Your task to perform on an android device: toggle data saver in the chrome app Image 0: 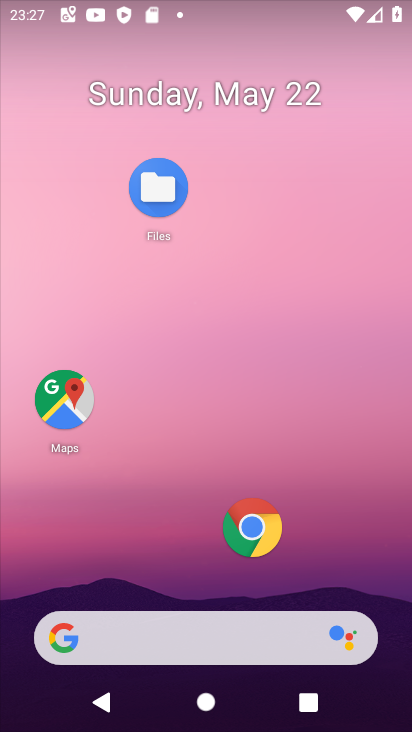
Step 0: click (254, 530)
Your task to perform on an android device: toggle data saver in the chrome app Image 1: 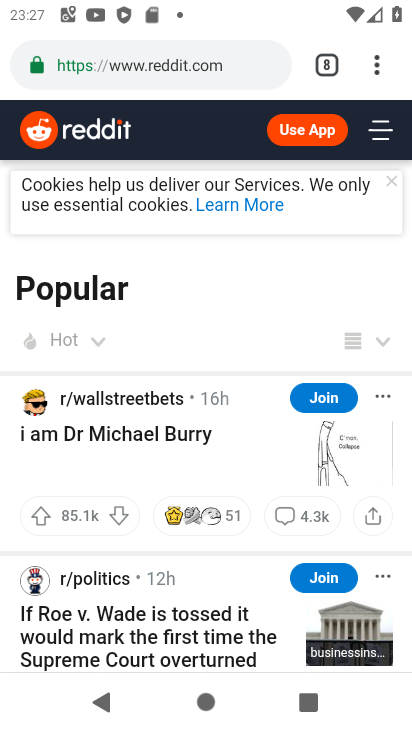
Step 1: click (378, 64)
Your task to perform on an android device: toggle data saver in the chrome app Image 2: 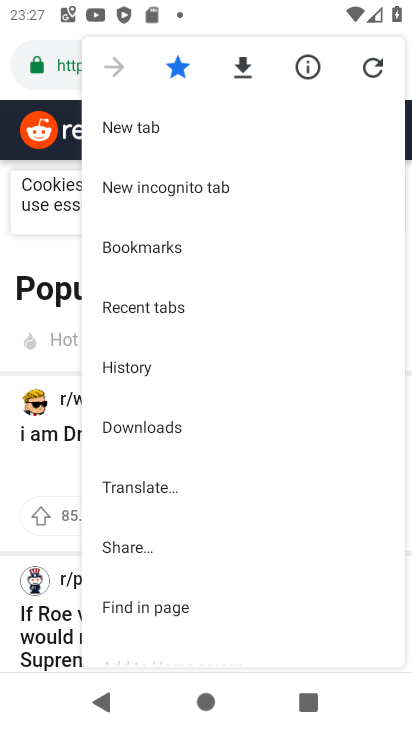
Step 2: drag from (213, 514) to (206, 116)
Your task to perform on an android device: toggle data saver in the chrome app Image 3: 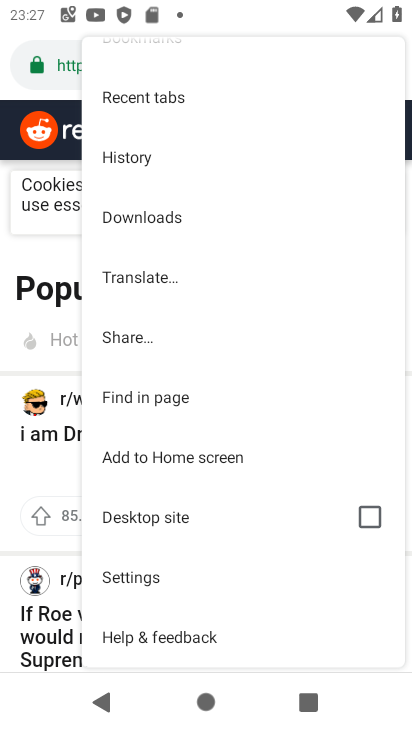
Step 3: click (123, 581)
Your task to perform on an android device: toggle data saver in the chrome app Image 4: 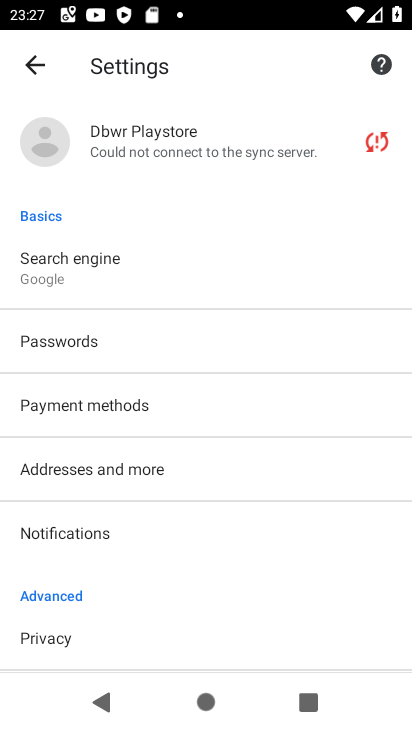
Step 4: drag from (222, 544) to (186, 201)
Your task to perform on an android device: toggle data saver in the chrome app Image 5: 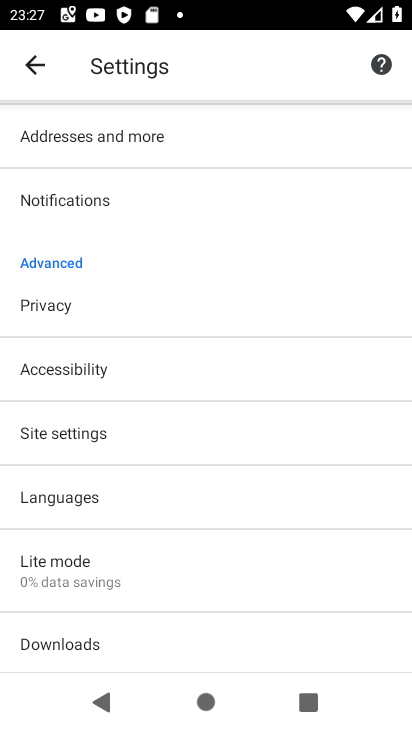
Step 5: click (60, 566)
Your task to perform on an android device: toggle data saver in the chrome app Image 6: 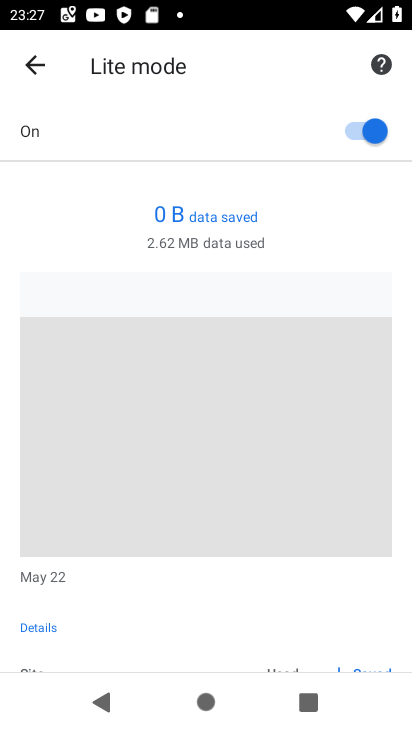
Step 6: click (363, 114)
Your task to perform on an android device: toggle data saver in the chrome app Image 7: 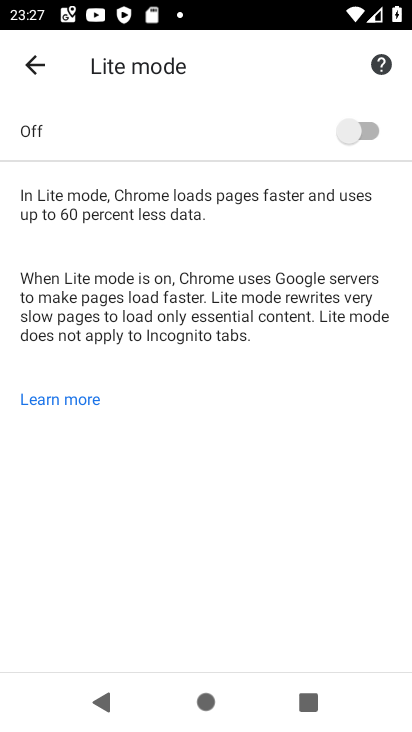
Step 7: task complete